Your task to perform on an android device: What's on my calendar today? Image 0: 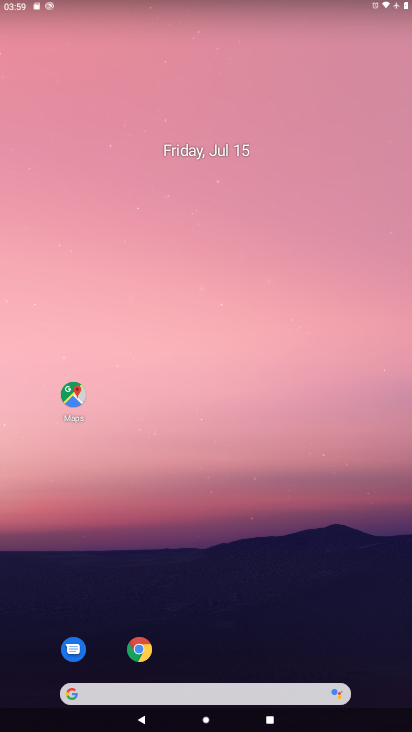
Step 0: drag from (372, 650) to (369, 120)
Your task to perform on an android device: What's on my calendar today? Image 1: 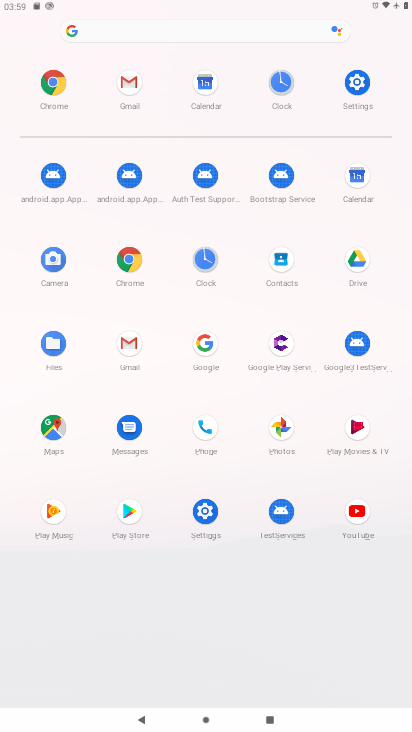
Step 1: click (351, 173)
Your task to perform on an android device: What's on my calendar today? Image 2: 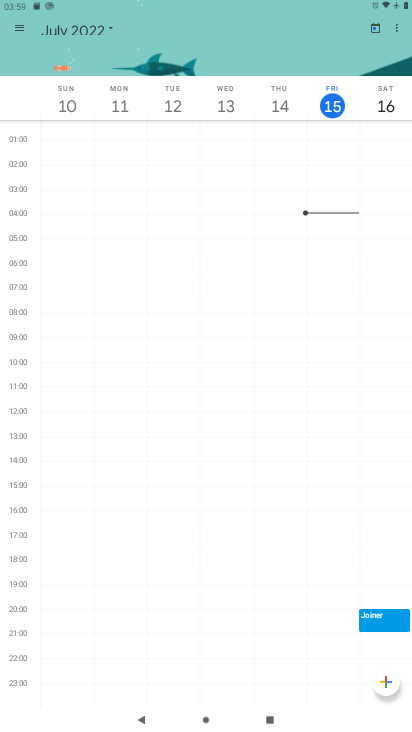
Step 2: click (14, 24)
Your task to perform on an android device: What's on my calendar today? Image 3: 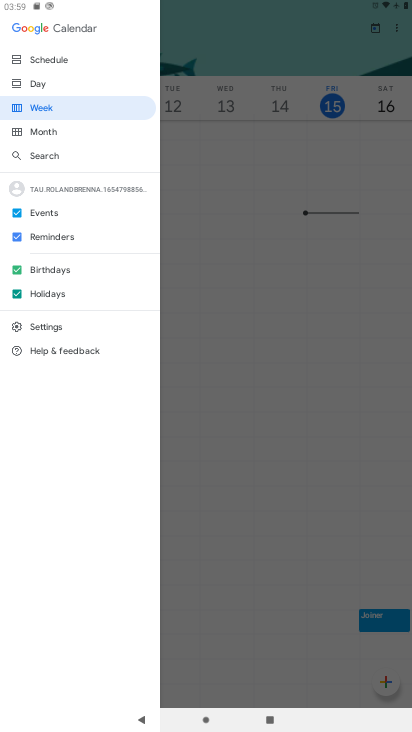
Step 3: click (41, 85)
Your task to perform on an android device: What's on my calendar today? Image 4: 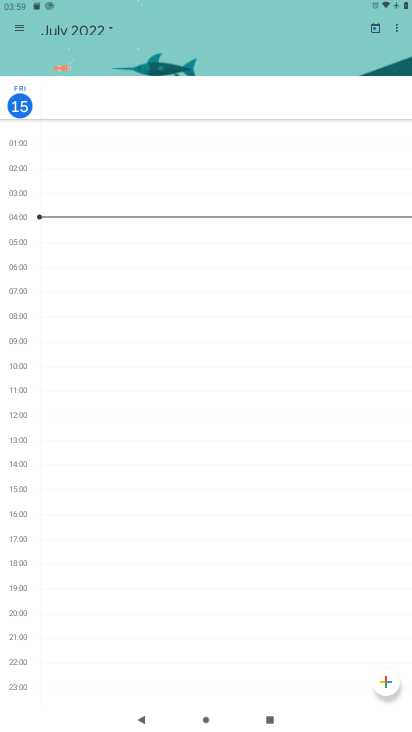
Step 4: click (107, 31)
Your task to perform on an android device: What's on my calendar today? Image 5: 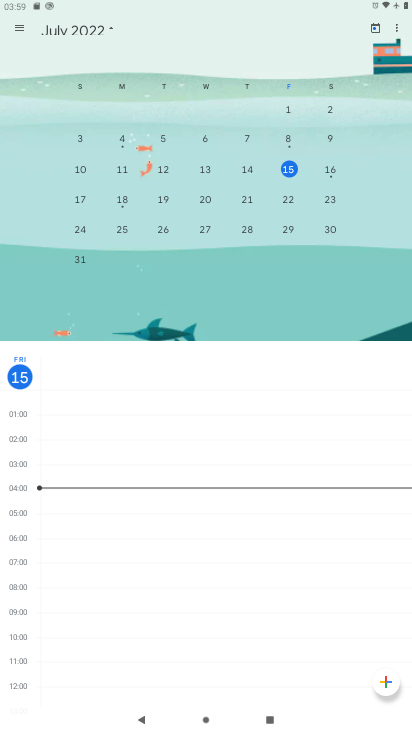
Step 5: task complete